Your task to perform on an android device: turn on priority inbox in the gmail app Image 0: 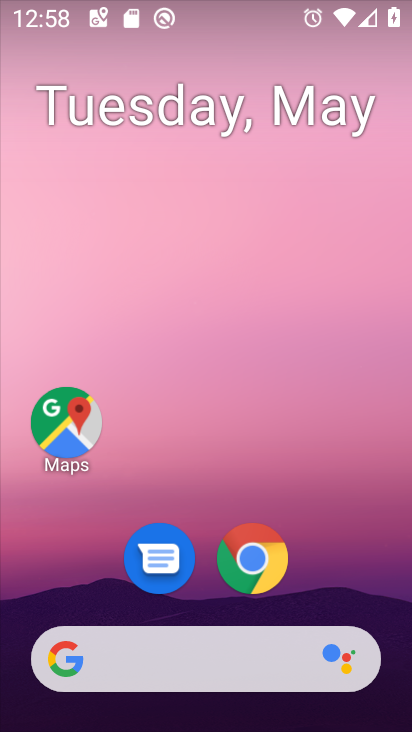
Step 0: drag from (365, 617) to (251, 92)
Your task to perform on an android device: turn on priority inbox in the gmail app Image 1: 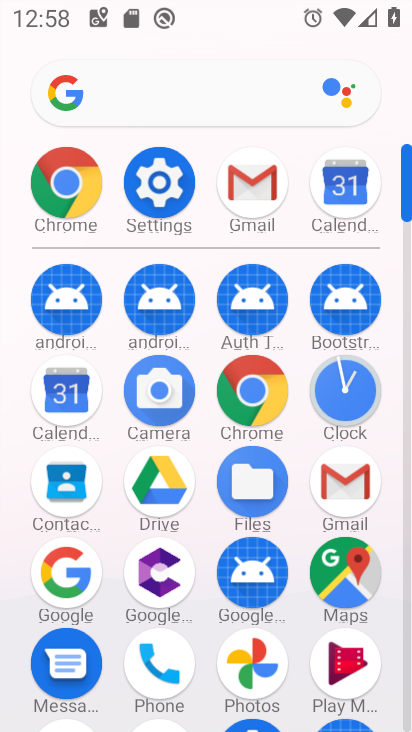
Step 1: click (271, 195)
Your task to perform on an android device: turn on priority inbox in the gmail app Image 2: 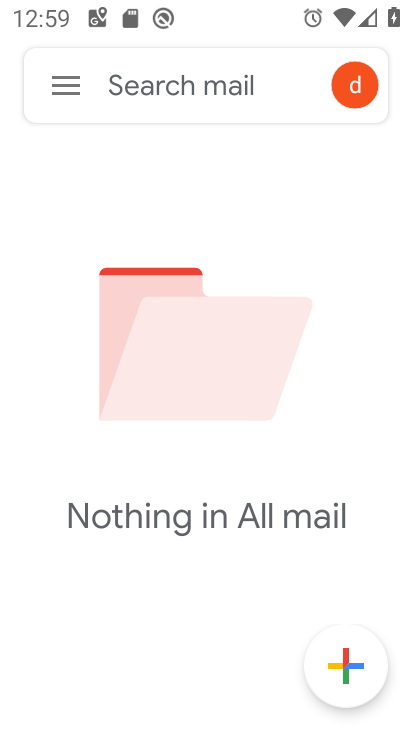
Step 2: click (73, 100)
Your task to perform on an android device: turn on priority inbox in the gmail app Image 3: 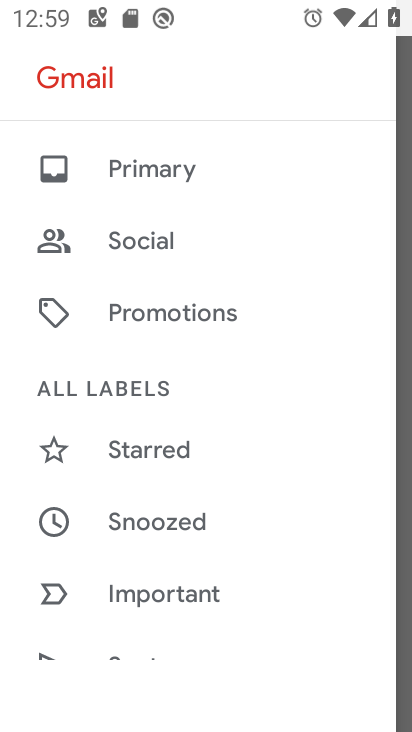
Step 3: drag from (202, 616) to (193, 101)
Your task to perform on an android device: turn on priority inbox in the gmail app Image 4: 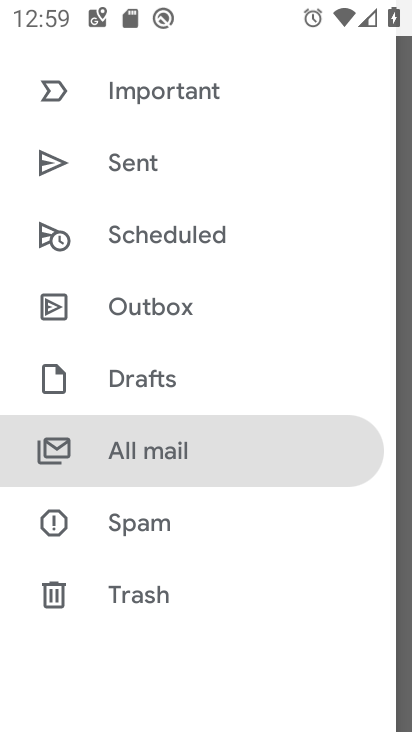
Step 4: drag from (182, 578) to (170, 128)
Your task to perform on an android device: turn on priority inbox in the gmail app Image 5: 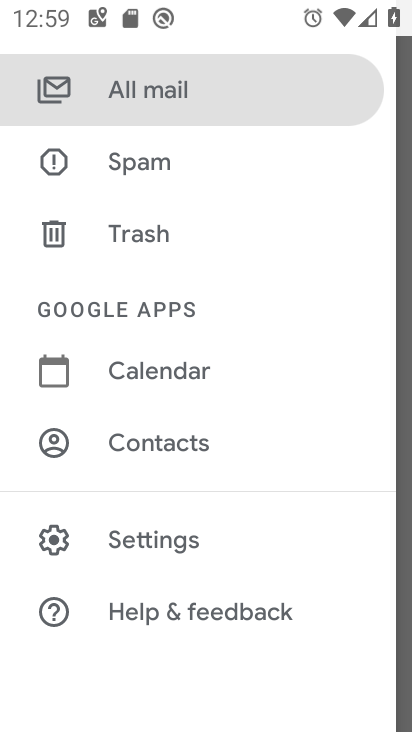
Step 5: click (200, 557)
Your task to perform on an android device: turn on priority inbox in the gmail app Image 6: 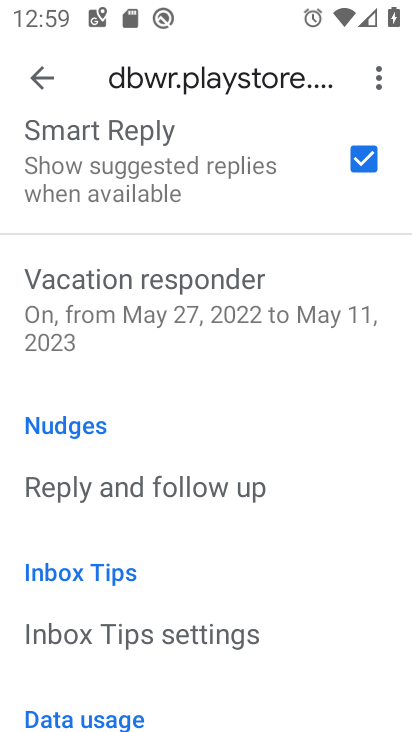
Step 6: drag from (236, 185) to (252, 655)
Your task to perform on an android device: turn on priority inbox in the gmail app Image 7: 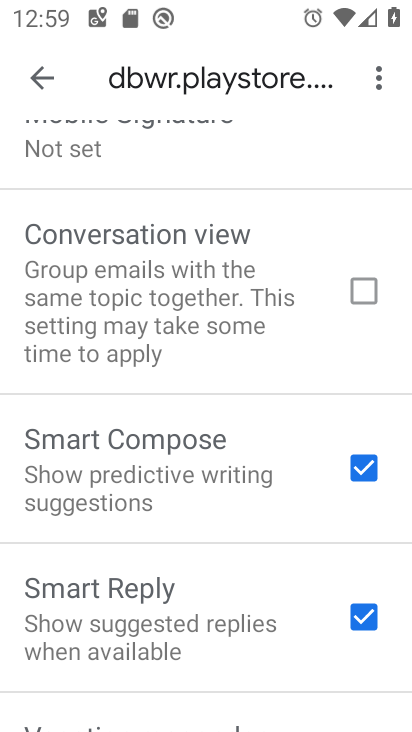
Step 7: drag from (199, 265) to (219, 718)
Your task to perform on an android device: turn on priority inbox in the gmail app Image 8: 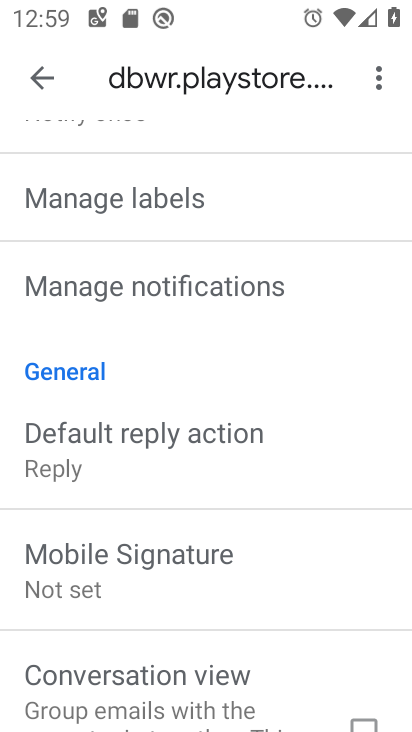
Step 8: drag from (188, 359) to (207, 720)
Your task to perform on an android device: turn on priority inbox in the gmail app Image 9: 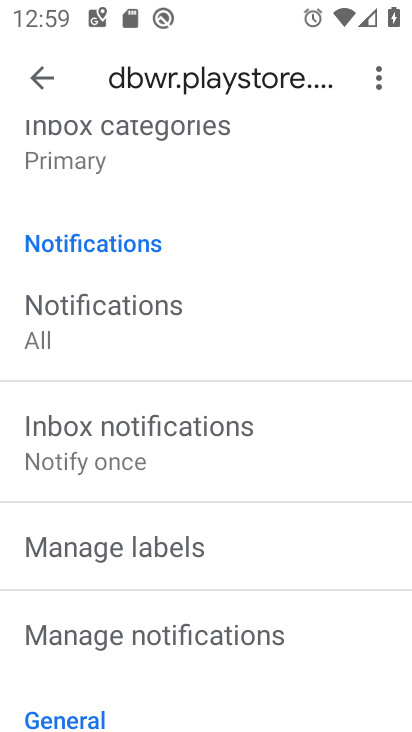
Step 9: drag from (170, 405) to (195, 610)
Your task to perform on an android device: turn on priority inbox in the gmail app Image 10: 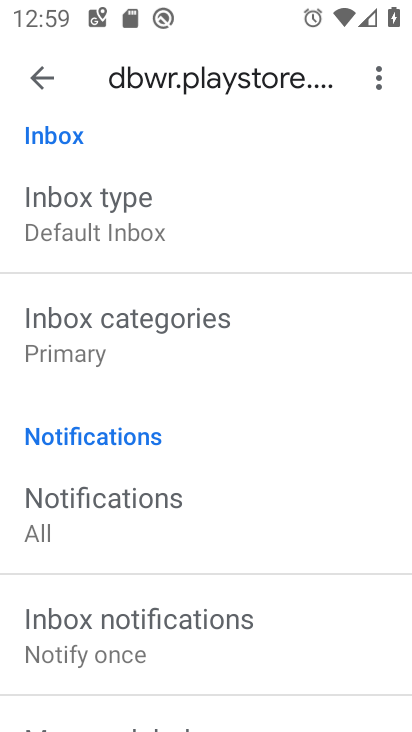
Step 10: click (191, 196)
Your task to perform on an android device: turn on priority inbox in the gmail app Image 11: 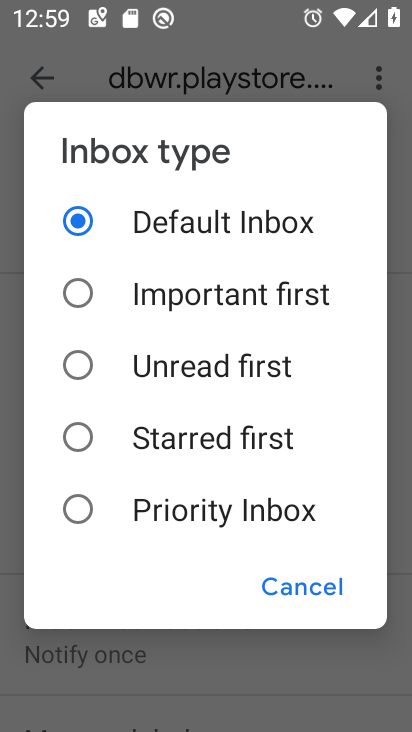
Step 11: click (186, 532)
Your task to perform on an android device: turn on priority inbox in the gmail app Image 12: 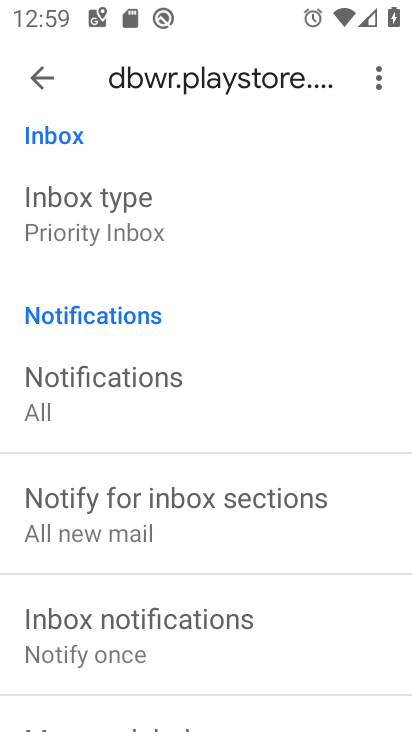
Step 12: task complete